Your task to perform on an android device: Open accessibility settings Image 0: 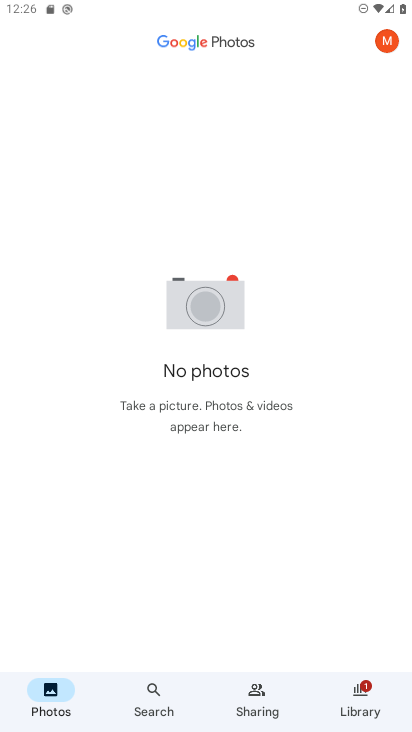
Step 0: press home button
Your task to perform on an android device: Open accessibility settings Image 1: 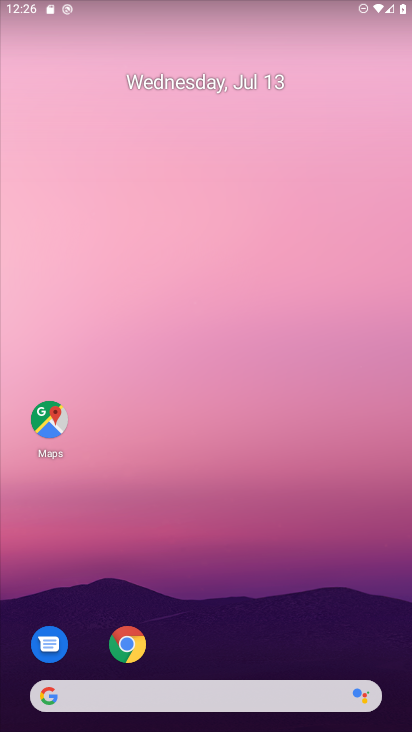
Step 1: drag from (107, 725) to (227, 70)
Your task to perform on an android device: Open accessibility settings Image 2: 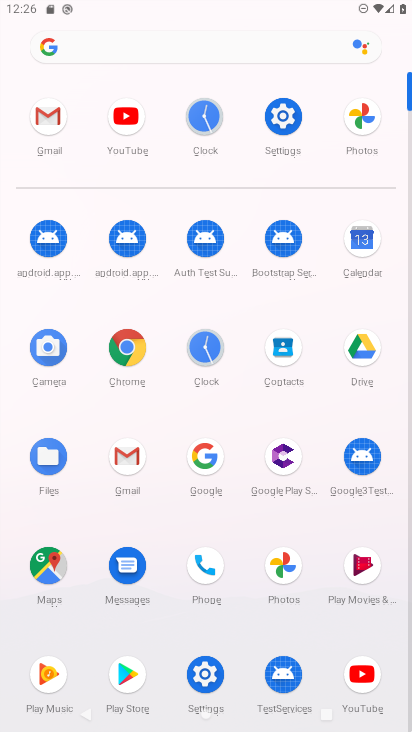
Step 2: click (269, 108)
Your task to perform on an android device: Open accessibility settings Image 3: 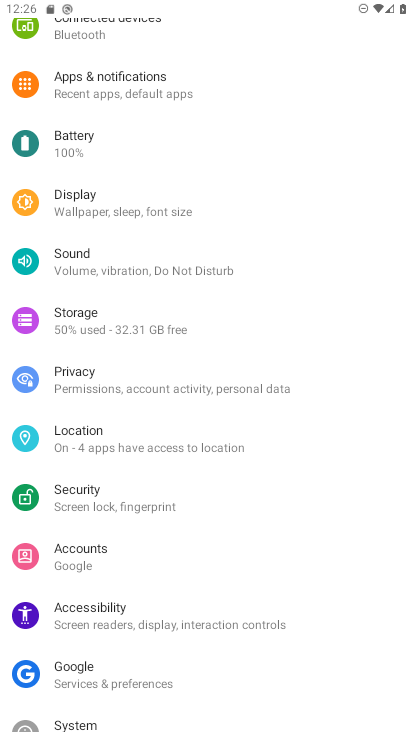
Step 3: drag from (268, 654) to (302, 133)
Your task to perform on an android device: Open accessibility settings Image 4: 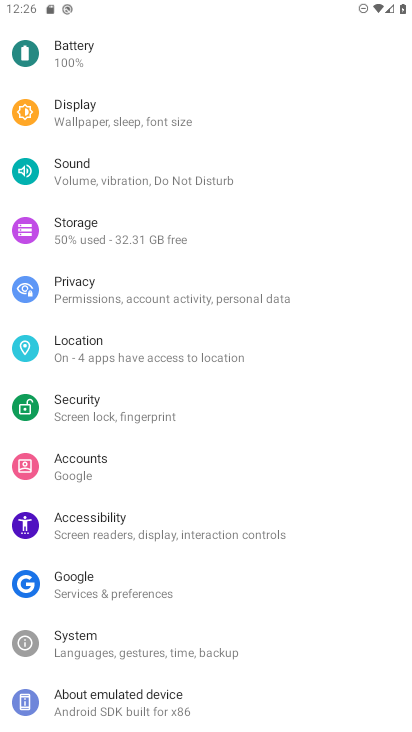
Step 4: click (164, 529)
Your task to perform on an android device: Open accessibility settings Image 5: 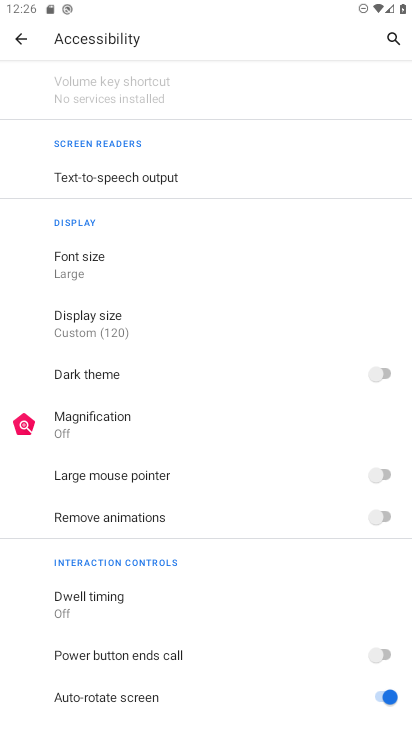
Step 5: task complete